Your task to perform on an android device: change the upload size in google photos Image 0: 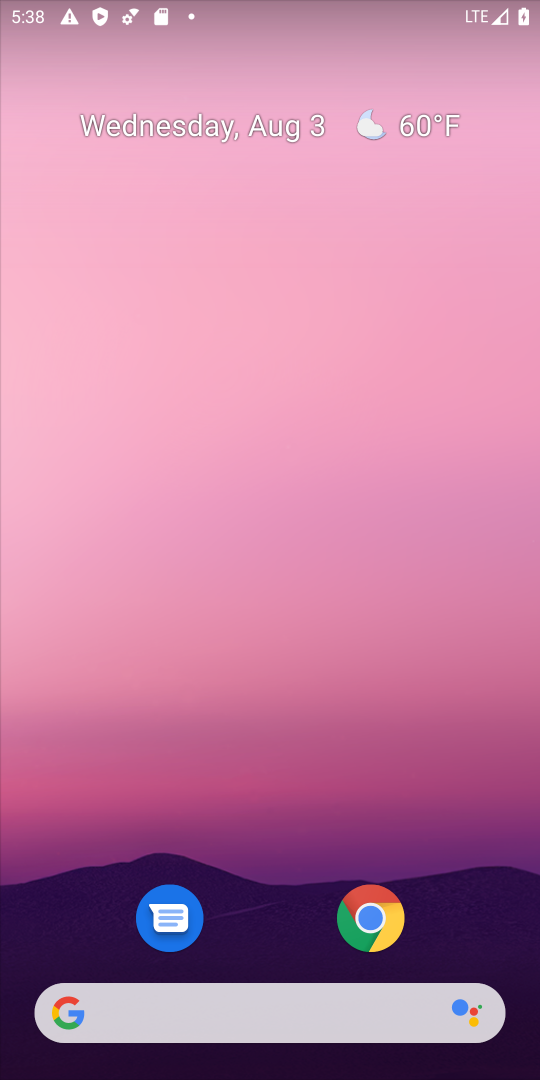
Step 0: drag from (285, 685) to (362, 376)
Your task to perform on an android device: change the upload size in google photos Image 1: 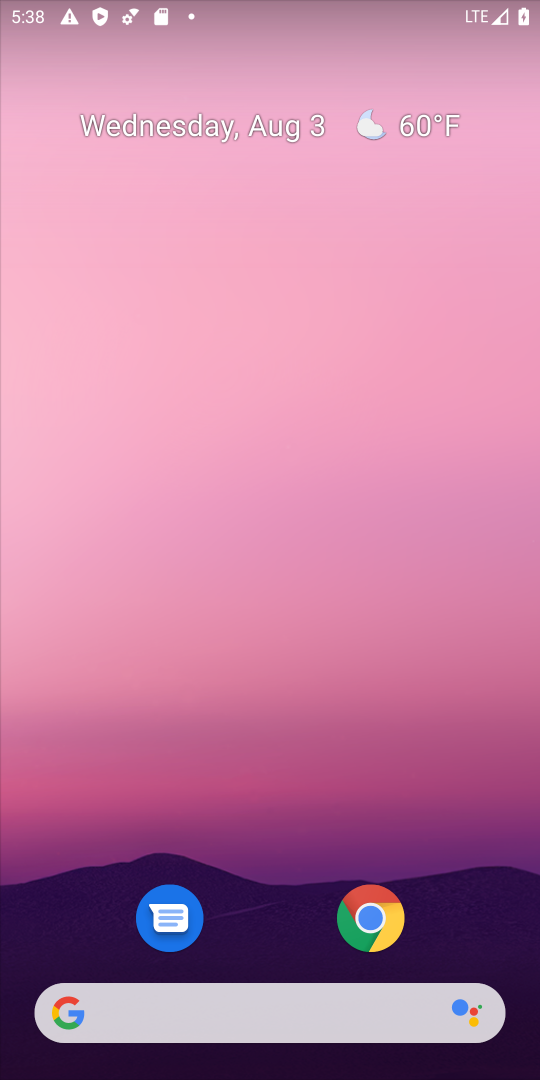
Step 1: drag from (288, 1021) to (387, 160)
Your task to perform on an android device: change the upload size in google photos Image 2: 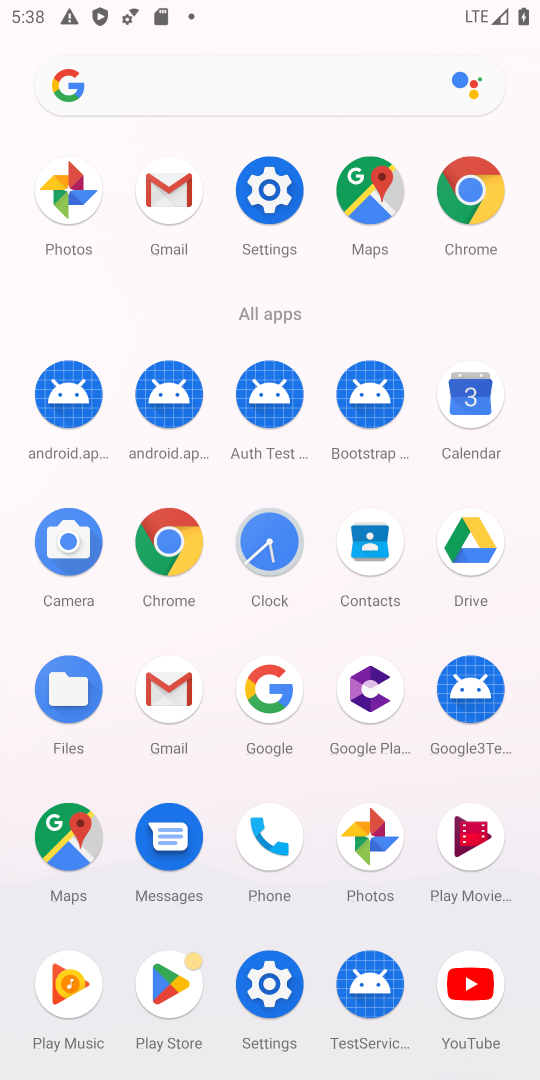
Step 2: click (381, 856)
Your task to perform on an android device: change the upload size in google photos Image 3: 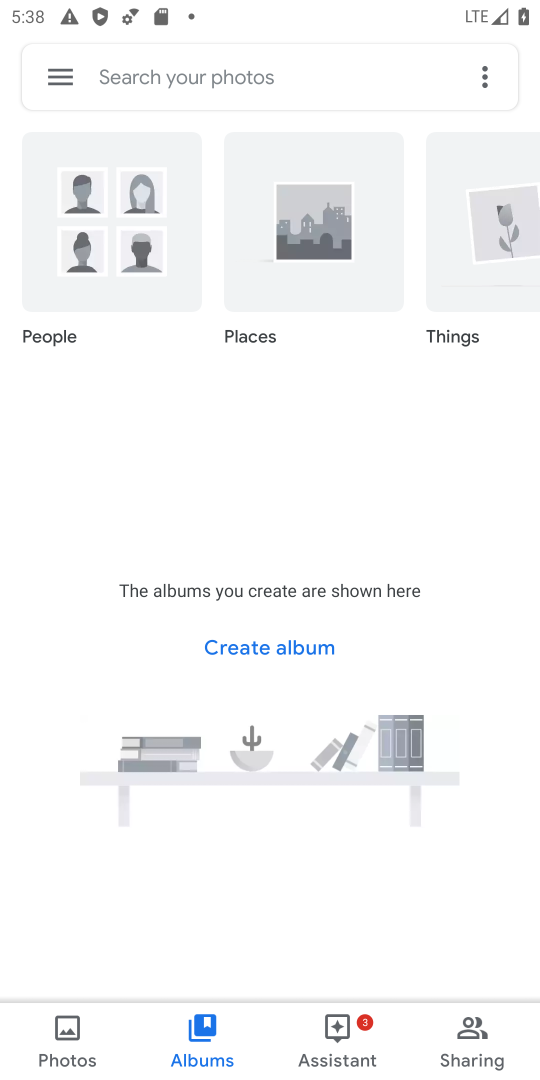
Step 3: click (41, 77)
Your task to perform on an android device: change the upload size in google photos Image 4: 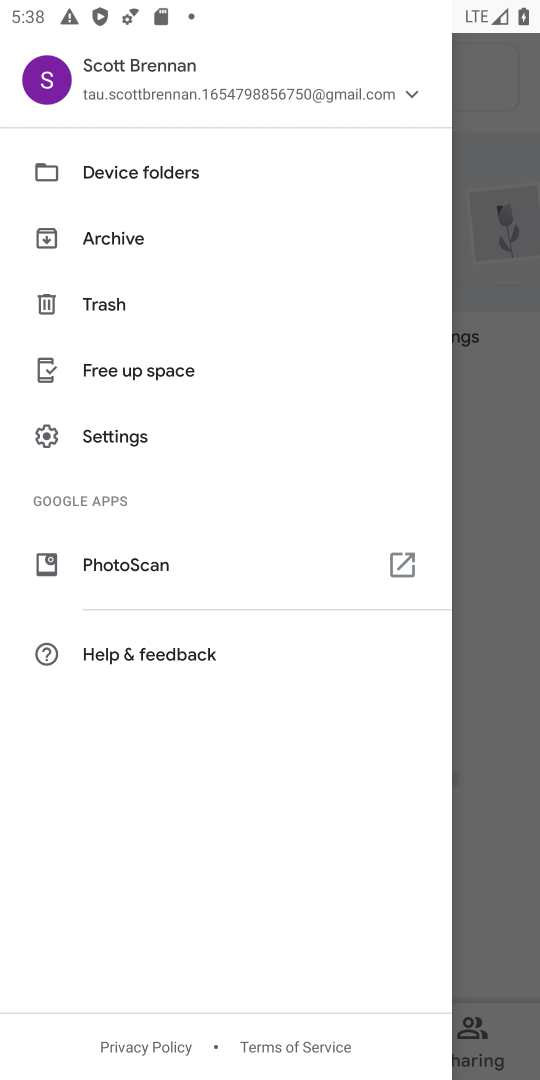
Step 4: click (99, 443)
Your task to perform on an android device: change the upload size in google photos Image 5: 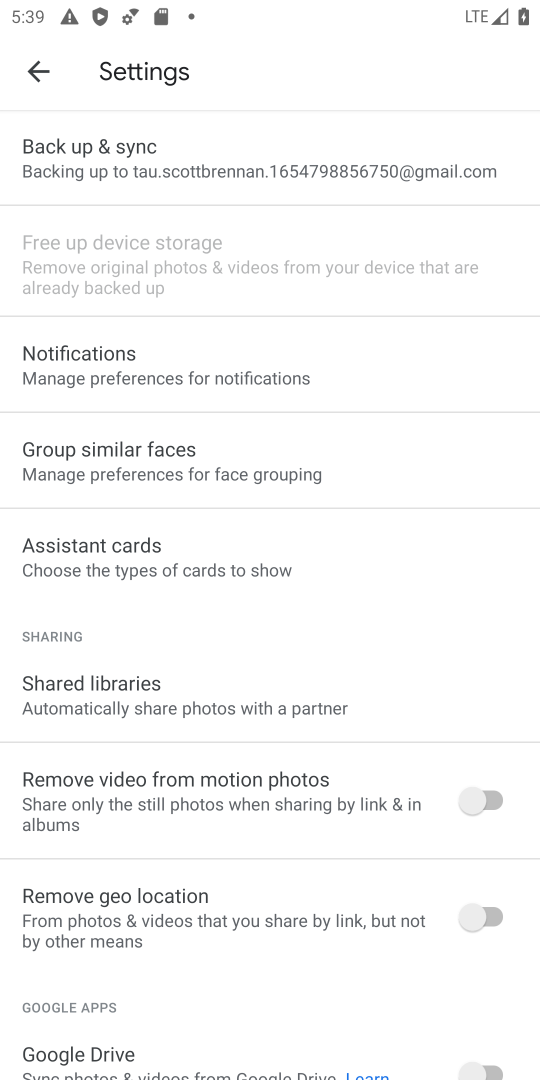
Step 5: click (155, 186)
Your task to perform on an android device: change the upload size in google photos Image 6: 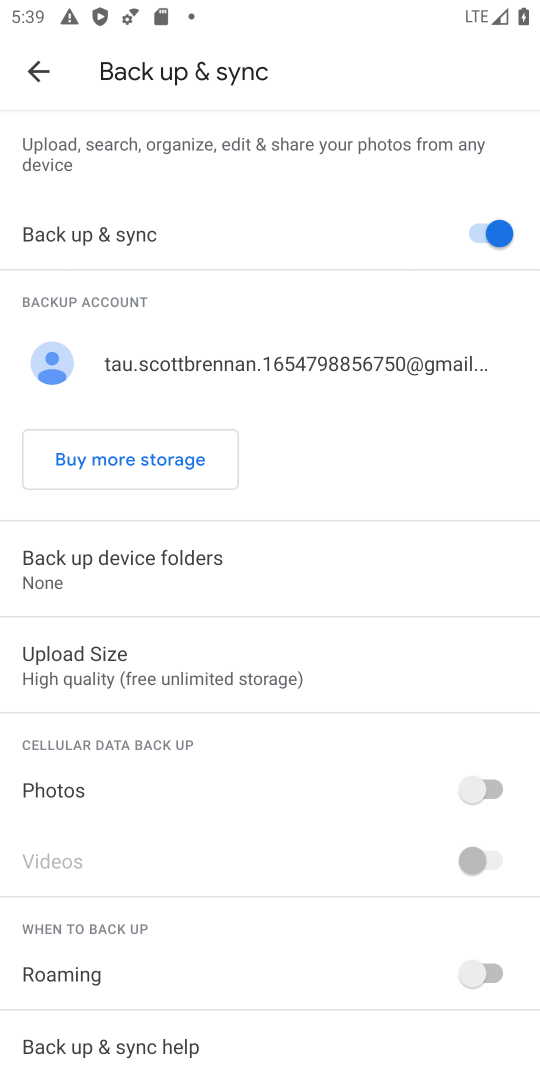
Step 6: click (167, 689)
Your task to perform on an android device: change the upload size in google photos Image 7: 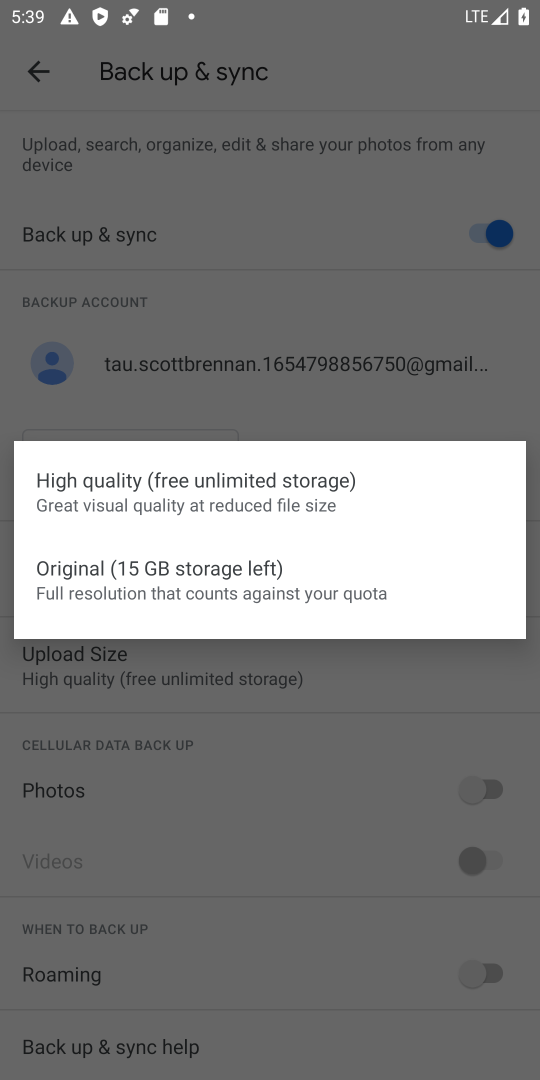
Step 7: click (99, 595)
Your task to perform on an android device: change the upload size in google photos Image 8: 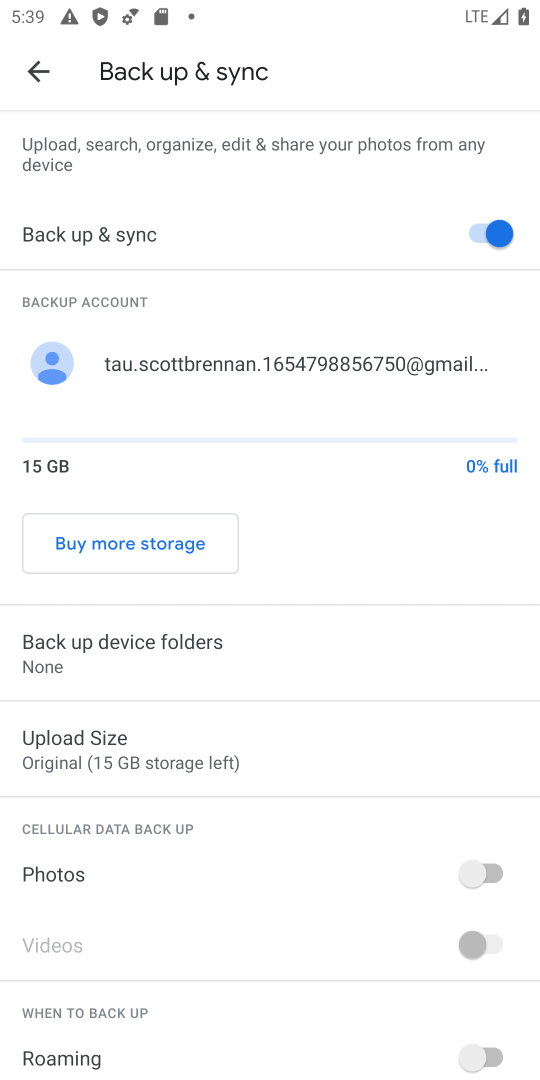
Step 8: task complete